Your task to perform on an android device: Is it going to rain today? Image 0: 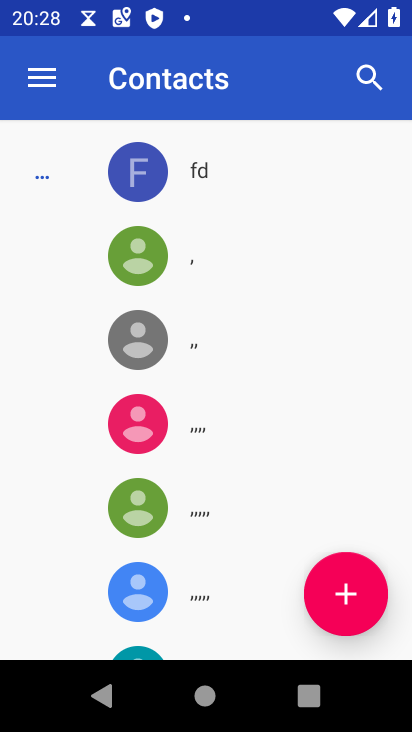
Step 0: press home button
Your task to perform on an android device: Is it going to rain today? Image 1: 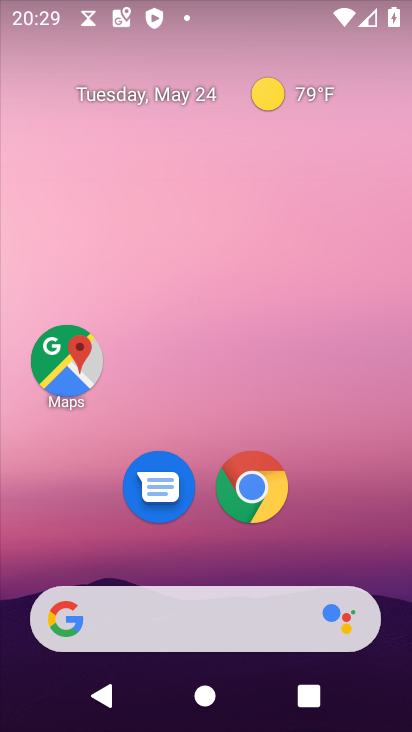
Step 1: click (164, 615)
Your task to perform on an android device: Is it going to rain today? Image 2: 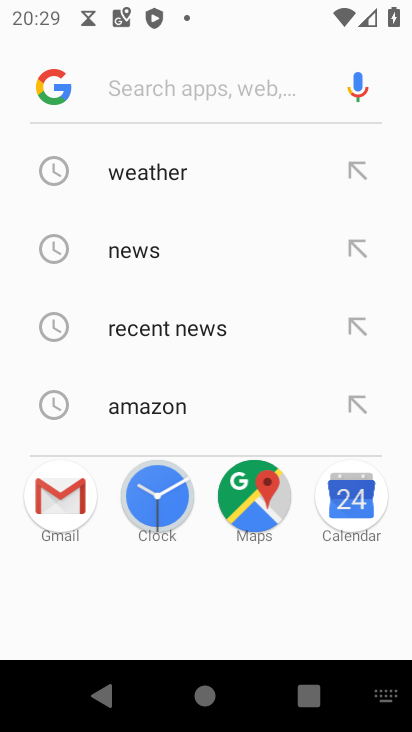
Step 2: click (176, 171)
Your task to perform on an android device: Is it going to rain today? Image 3: 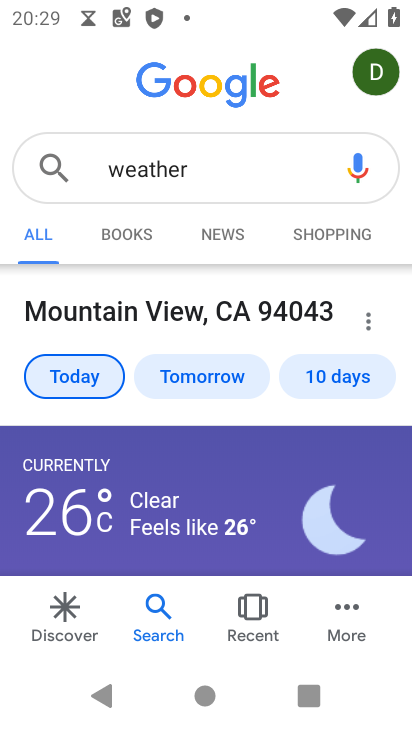
Step 3: task complete